Your task to perform on an android device: turn on sleep mode Image 0: 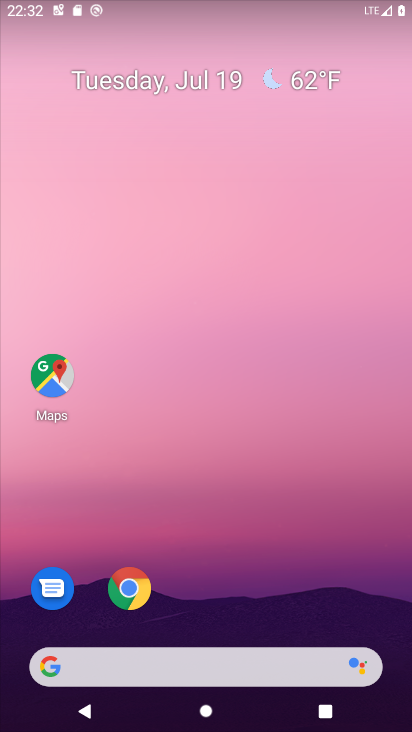
Step 0: drag from (218, 555) to (241, 251)
Your task to perform on an android device: turn on sleep mode Image 1: 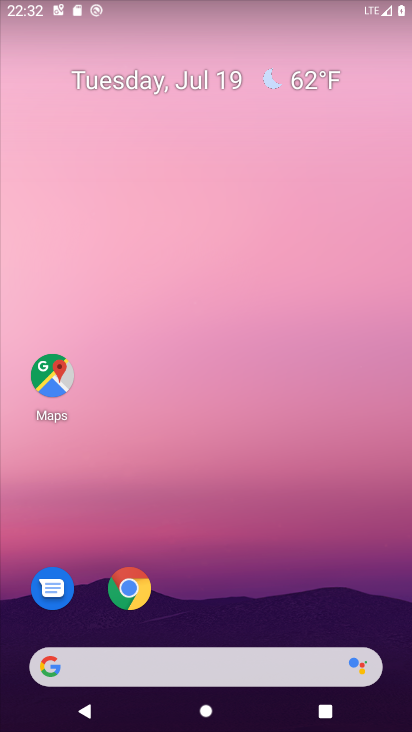
Step 1: click (249, 78)
Your task to perform on an android device: turn on sleep mode Image 2: 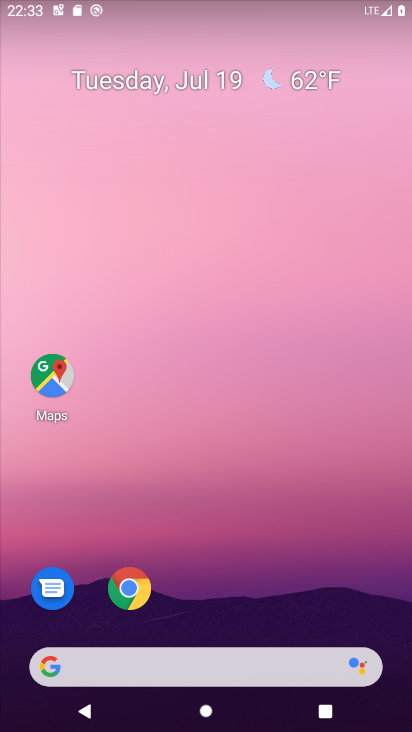
Step 2: drag from (176, 480) to (186, 115)
Your task to perform on an android device: turn on sleep mode Image 3: 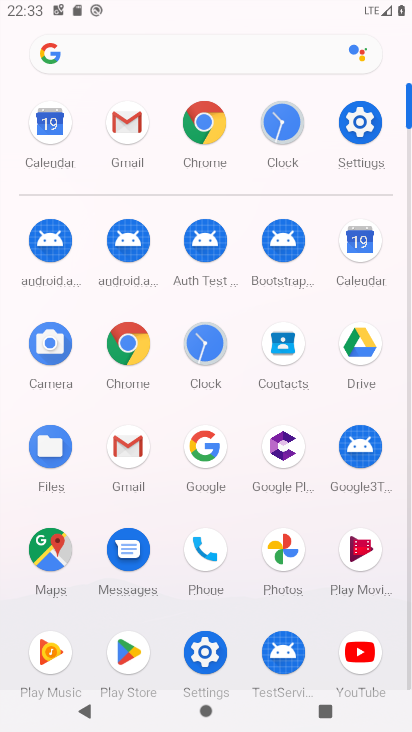
Step 3: click (358, 133)
Your task to perform on an android device: turn on sleep mode Image 4: 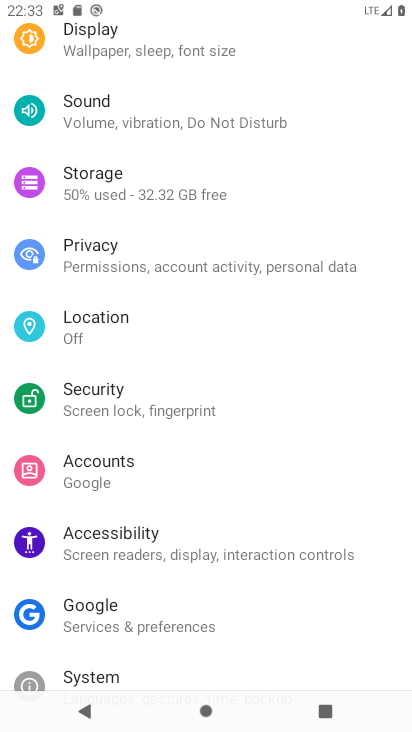
Step 4: task complete